Your task to perform on an android device: refresh tabs in the chrome app Image 0: 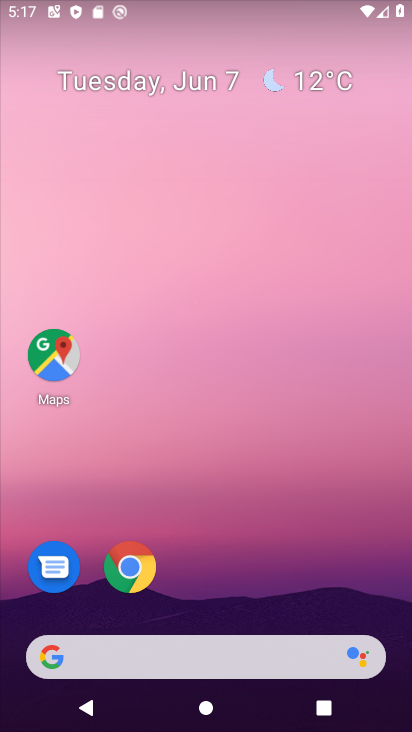
Step 0: drag from (296, 552) to (271, 36)
Your task to perform on an android device: refresh tabs in the chrome app Image 1: 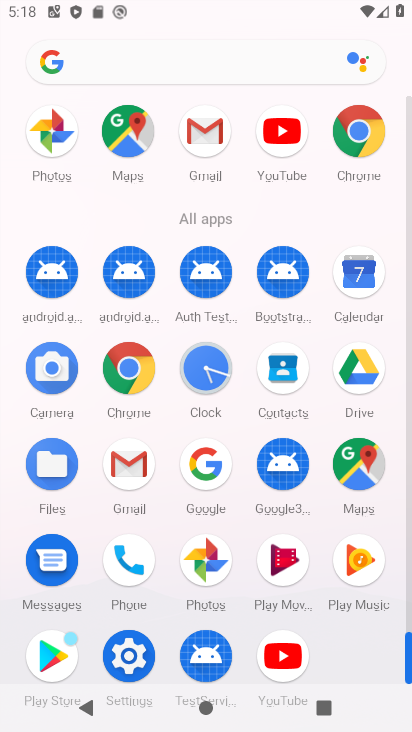
Step 1: drag from (8, 588) to (8, 224)
Your task to perform on an android device: refresh tabs in the chrome app Image 2: 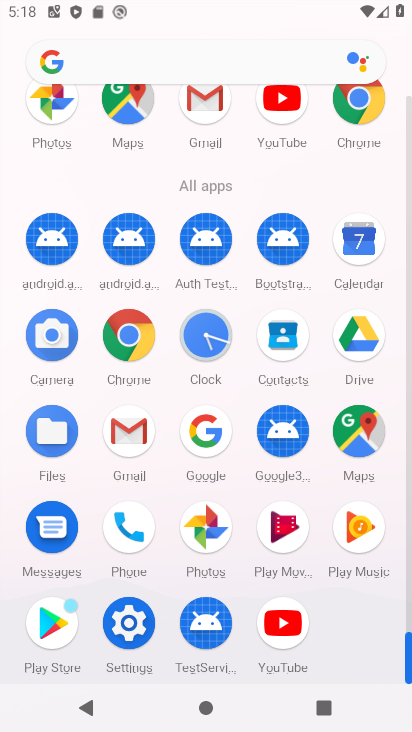
Step 2: click (124, 333)
Your task to perform on an android device: refresh tabs in the chrome app Image 3: 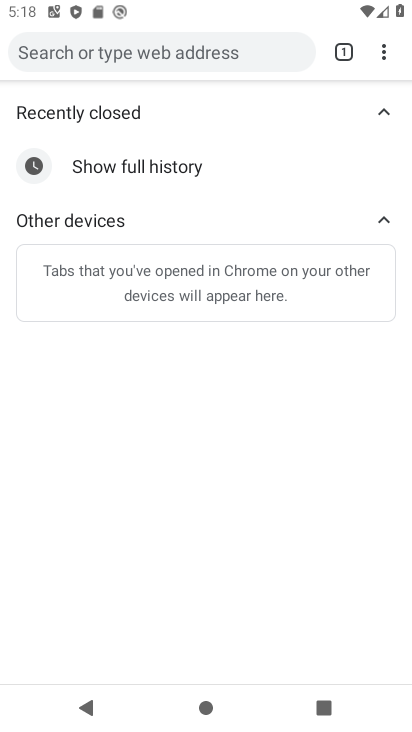
Step 3: click (379, 56)
Your task to perform on an android device: refresh tabs in the chrome app Image 4: 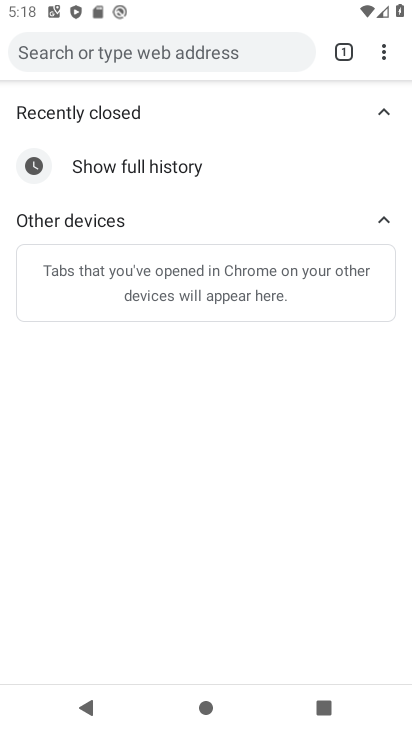
Step 4: task complete